Your task to perform on an android device: Open Maps and search for coffee Image 0: 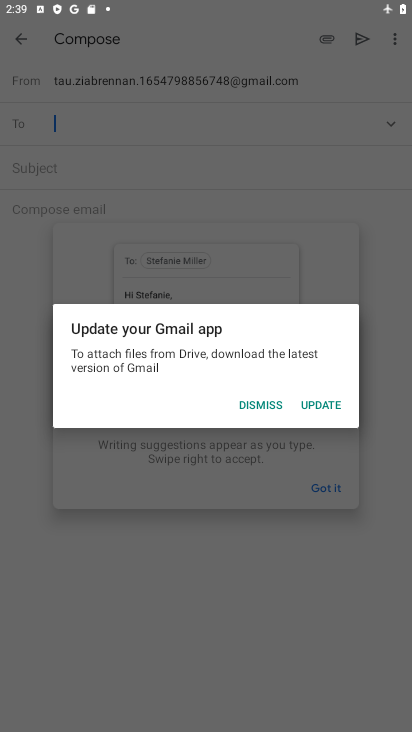
Step 0: press home button
Your task to perform on an android device: Open Maps and search for coffee Image 1: 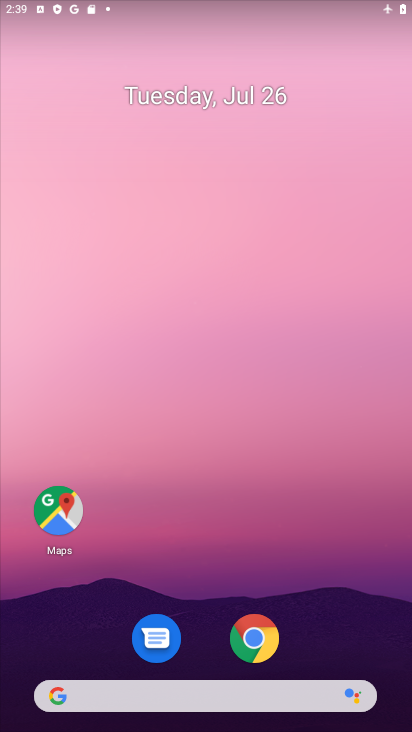
Step 1: click (46, 513)
Your task to perform on an android device: Open Maps and search for coffee Image 2: 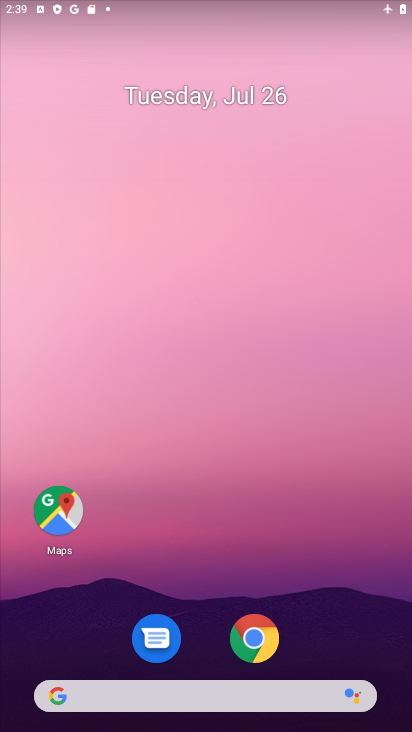
Step 2: click (46, 513)
Your task to perform on an android device: Open Maps and search for coffee Image 3: 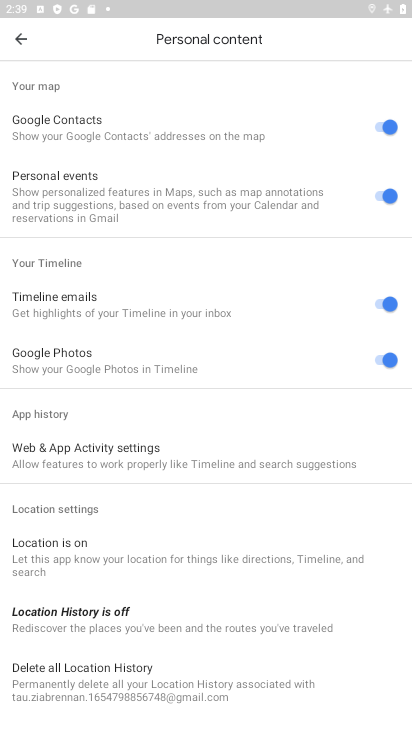
Step 3: click (25, 35)
Your task to perform on an android device: Open Maps and search for coffee Image 4: 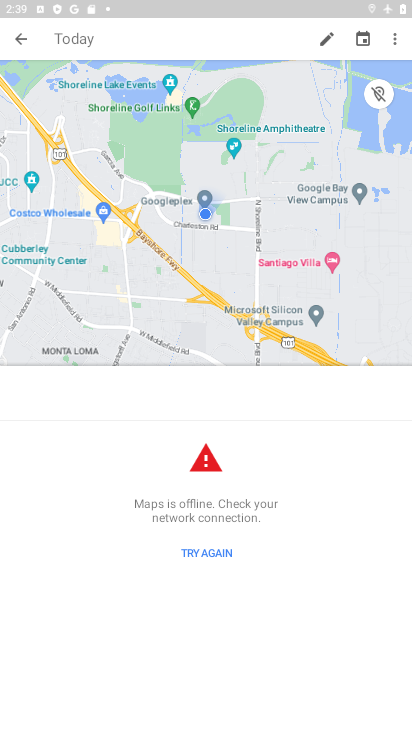
Step 4: click (25, 35)
Your task to perform on an android device: Open Maps and search for coffee Image 5: 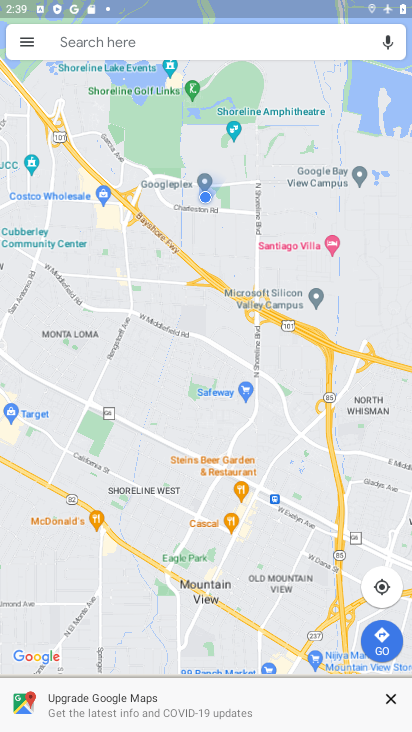
Step 5: click (180, 40)
Your task to perform on an android device: Open Maps and search for coffee Image 6: 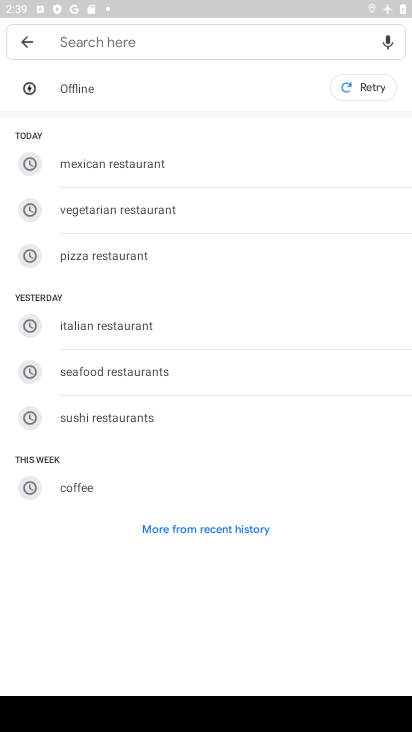
Step 6: click (95, 485)
Your task to perform on an android device: Open Maps and search for coffee Image 7: 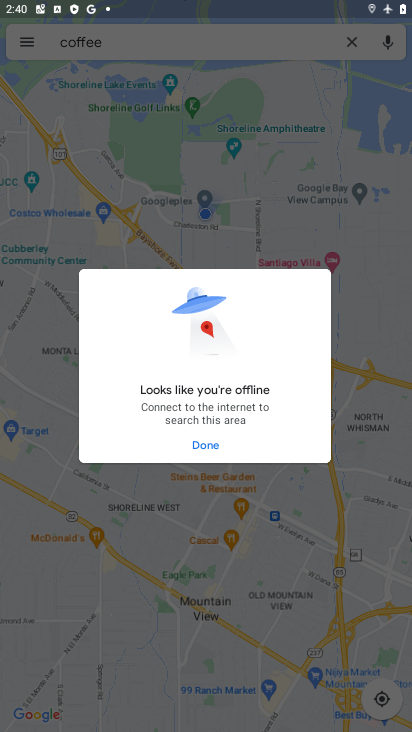
Step 7: task complete